Your task to perform on an android device: When is my next appointment? Image 0: 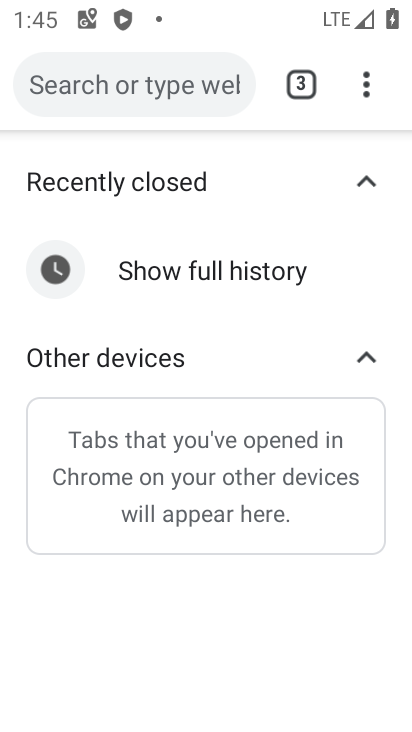
Step 0: press home button
Your task to perform on an android device: When is my next appointment? Image 1: 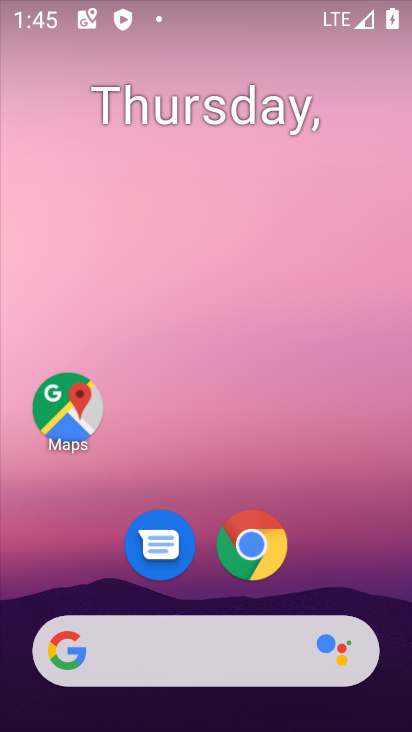
Step 1: drag from (187, 680) to (164, 12)
Your task to perform on an android device: When is my next appointment? Image 2: 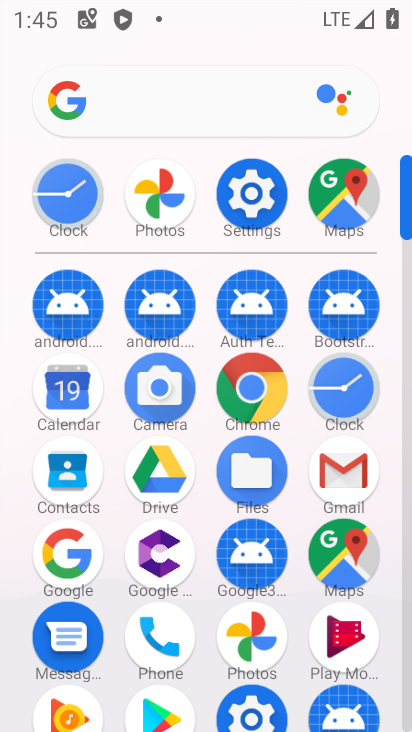
Step 2: click (72, 395)
Your task to perform on an android device: When is my next appointment? Image 3: 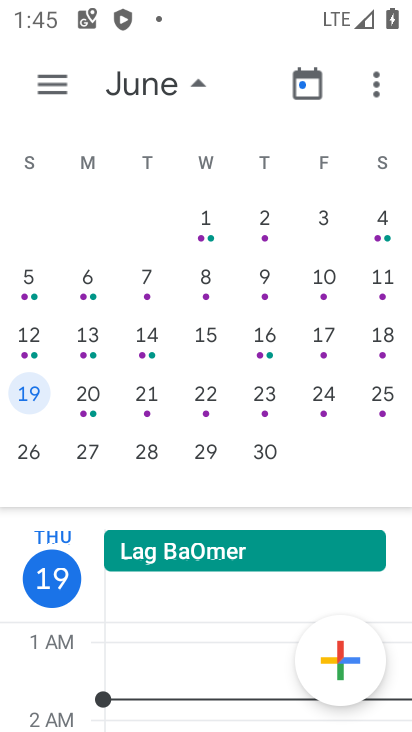
Step 3: drag from (62, 307) to (405, 302)
Your task to perform on an android device: When is my next appointment? Image 4: 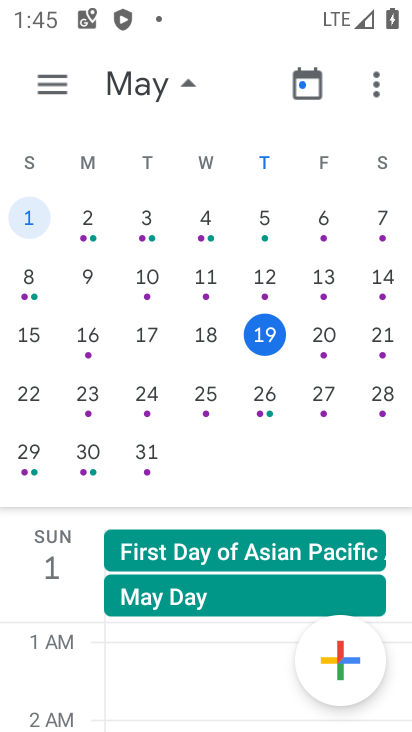
Step 4: click (44, 72)
Your task to perform on an android device: When is my next appointment? Image 5: 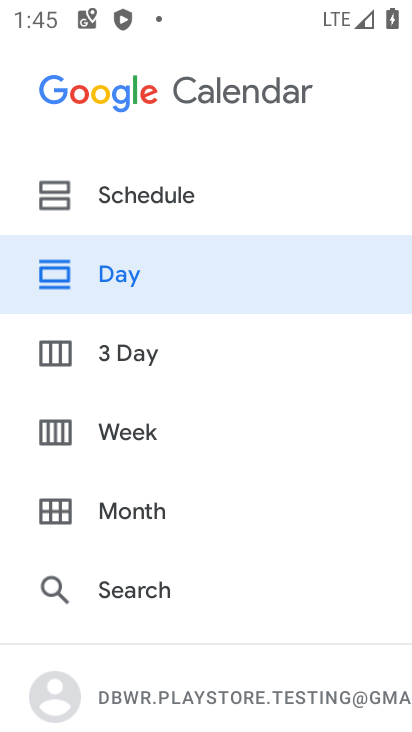
Step 5: click (98, 203)
Your task to perform on an android device: When is my next appointment? Image 6: 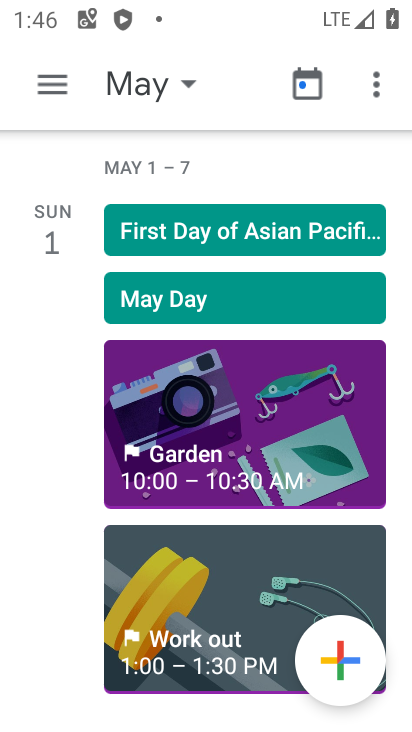
Step 6: task complete